Your task to perform on an android device: check google app version Image 0: 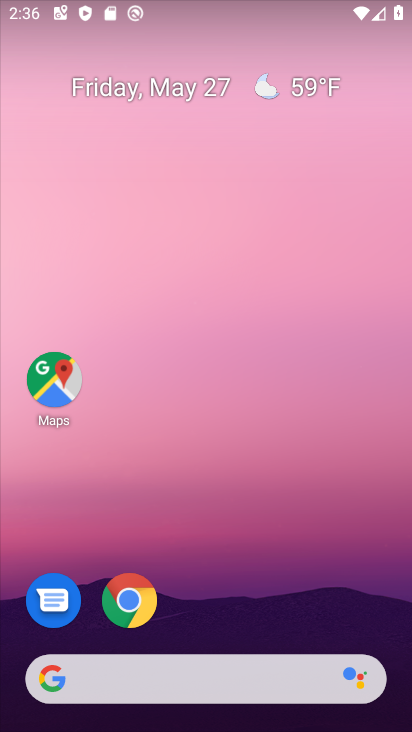
Step 0: drag from (276, 612) to (233, 64)
Your task to perform on an android device: check google app version Image 1: 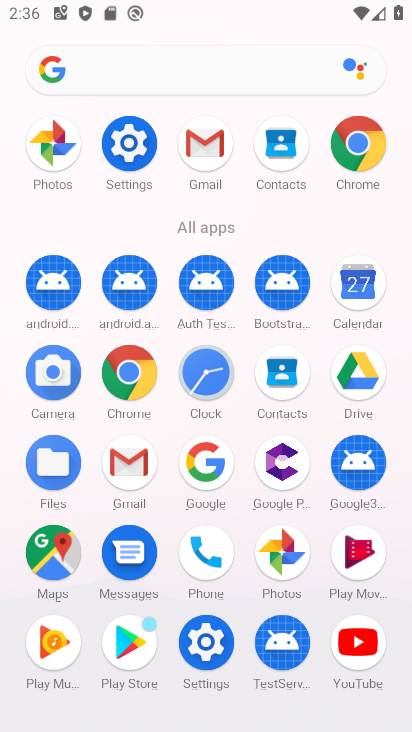
Step 1: click (203, 466)
Your task to perform on an android device: check google app version Image 2: 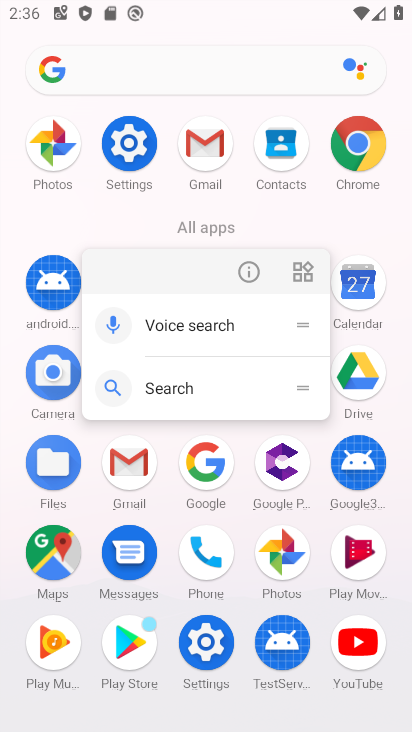
Step 2: click (246, 270)
Your task to perform on an android device: check google app version Image 3: 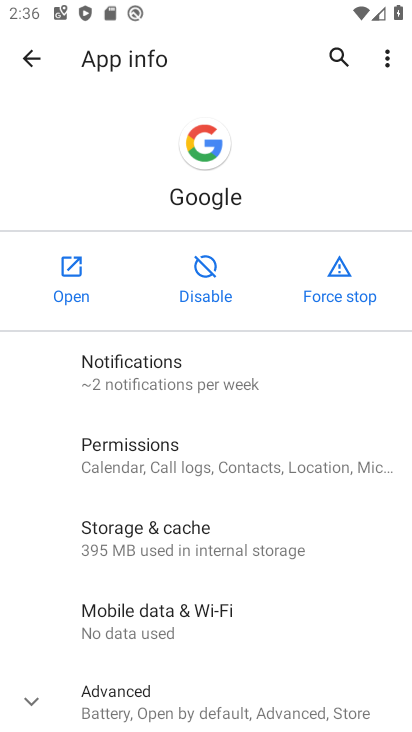
Step 3: drag from (213, 641) to (226, 407)
Your task to perform on an android device: check google app version Image 4: 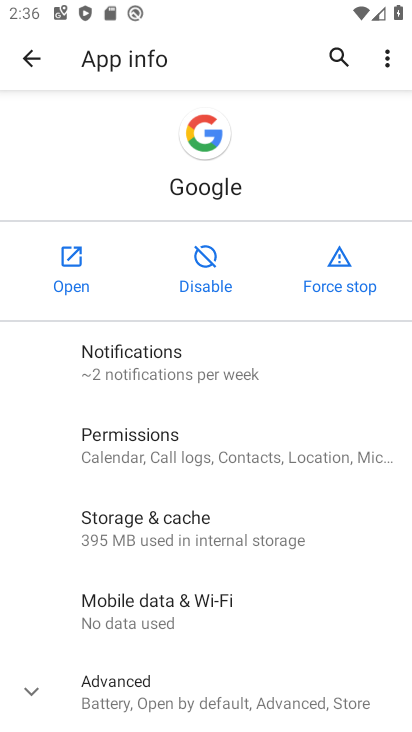
Step 4: click (169, 697)
Your task to perform on an android device: check google app version Image 5: 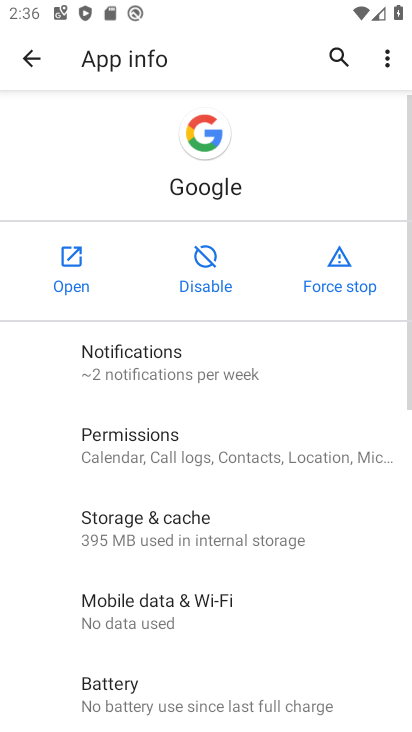
Step 5: task complete